Your task to perform on an android device: check android version Image 0: 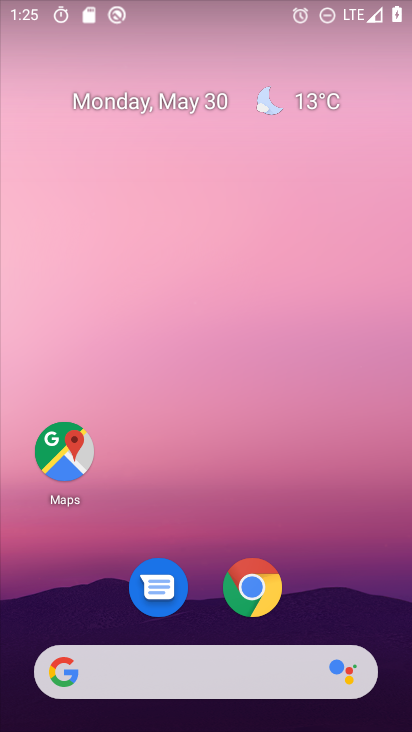
Step 0: drag from (367, 549) to (319, 159)
Your task to perform on an android device: check android version Image 1: 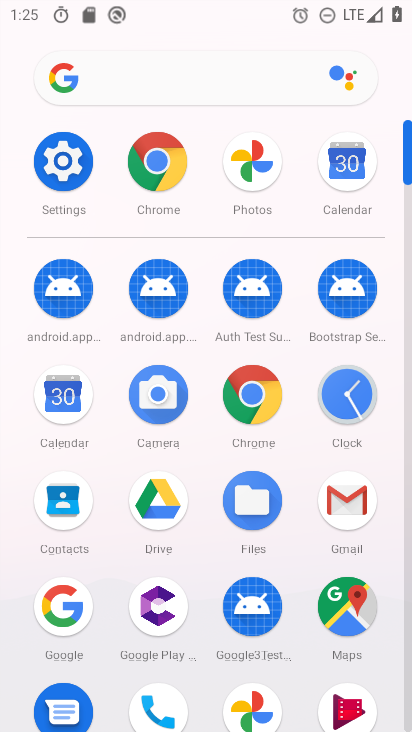
Step 1: click (73, 162)
Your task to perform on an android device: check android version Image 2: 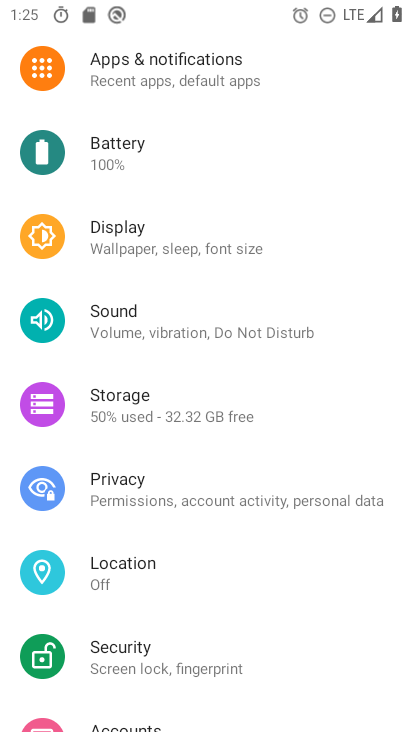
Step 2: drag from (277, 638) to (357, 166)
Your task to perform on an android device: check android version Image 3: 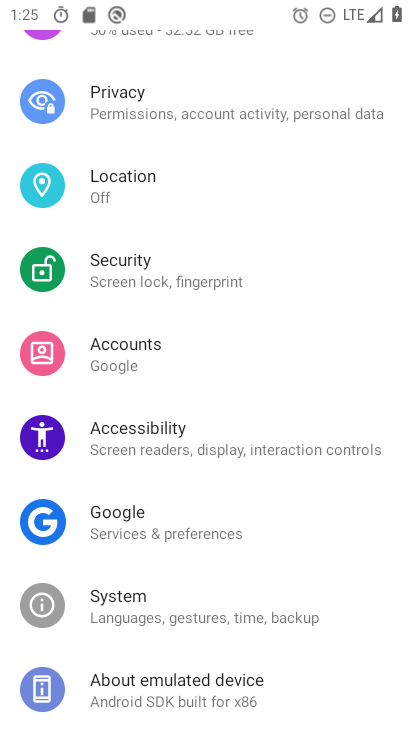
Step 3: drag from (297, 509) to (355, 10)
Your task to perform on an android device: check android version Image 4: 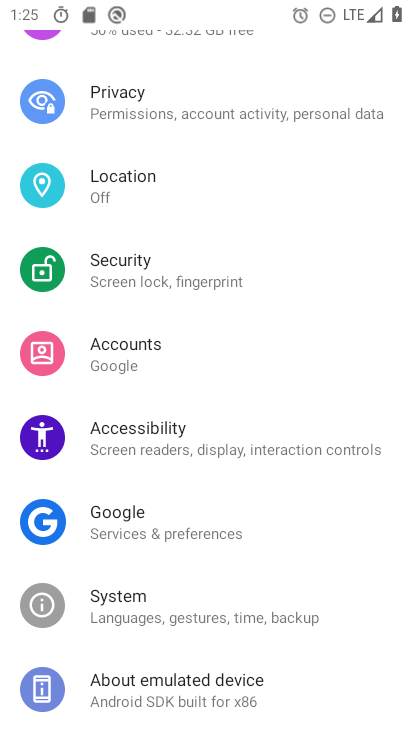
Step 4: click (212, 703)
Your task to perform on an android device: check android version Image 5: 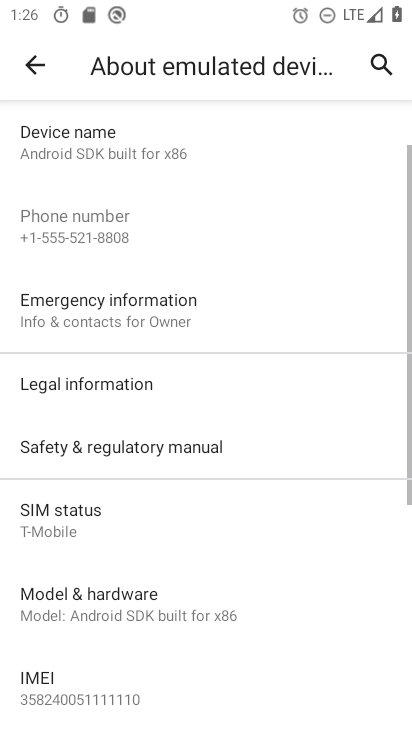
Step 5: drag from (209, 531) to (175, 4)
Your task to perform on an android device: check android version Image 6: 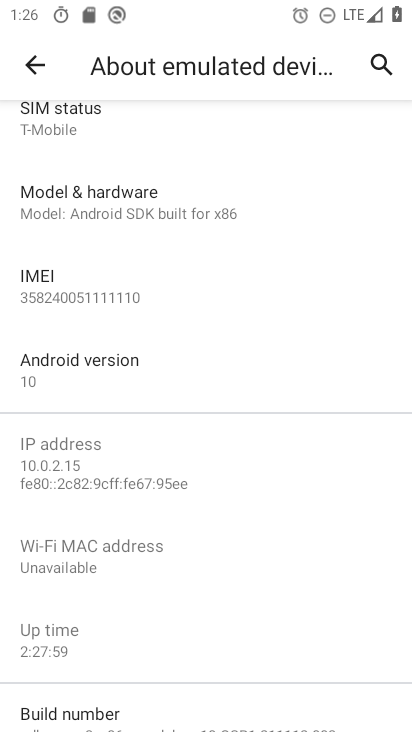
Step 6: drag from (122, 615) to (170, 225)
Your task to perform on an android device: check android version Image 7: 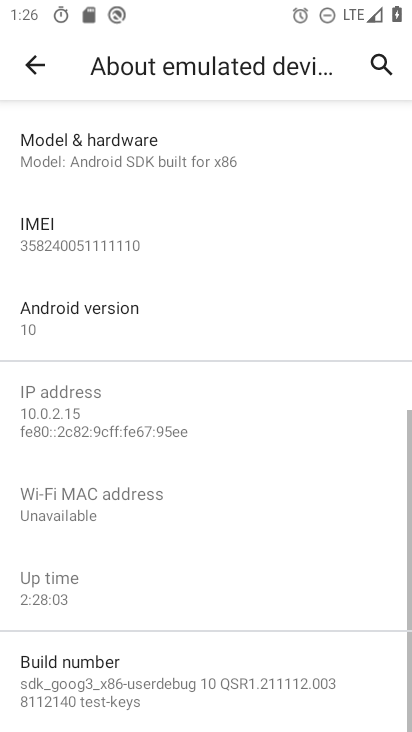
Step 7: drag from (188, 340) to (209, 488)
Your task to perform on an android device: check android version Image 8: 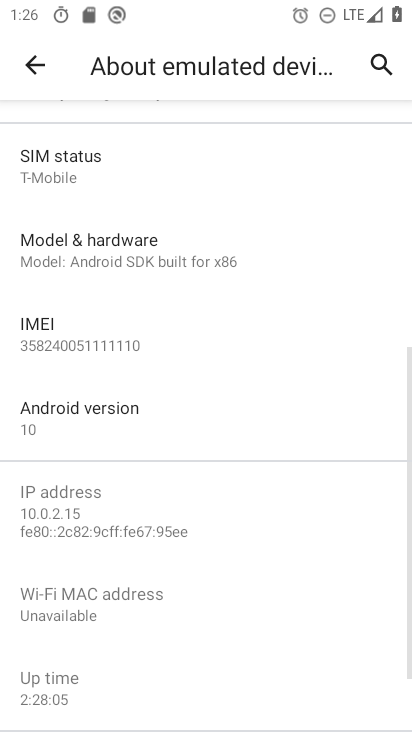
Step 8: click (124, 441)
Your task to perform on an android device: check android version Image 9: 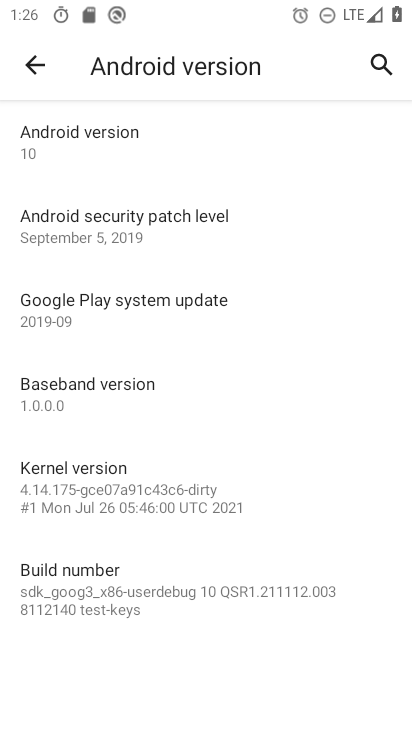
Step 9: task complete